Your task to perform on an android device: Look up the best rated video games on bestbuy.com Image 0: 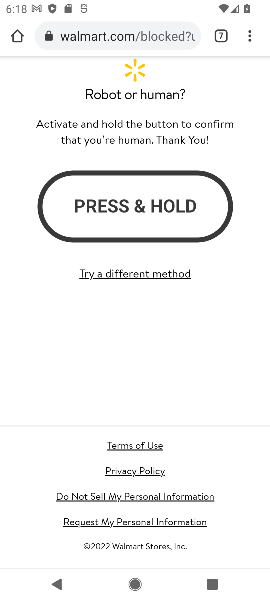
Step 0: press back button
Your task to perform on an android device: Look up the best rated video games on bestbuy.com Image 1: 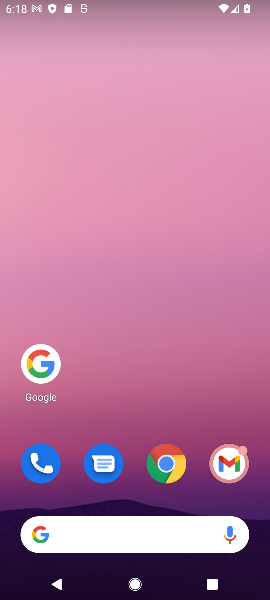
Step 1: click (39, 355)
Your task to perform on an android device: Look up the best rated video games on bestbuy.com Image 2: 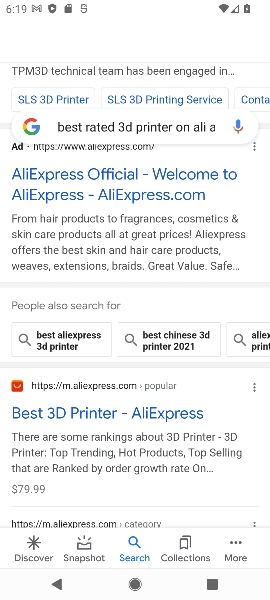
Step 2: click (126, 121)
Your task to perform on an android device: Look up the best rated video games on bestbuy.com Image 3: 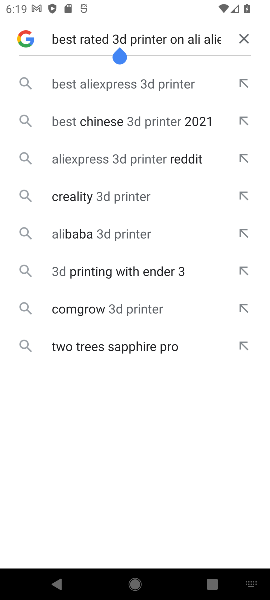
Step 3: click (247, 38)
Your task to perform on an android device: Look up the best rated video games on bestbuy.com Image 4: 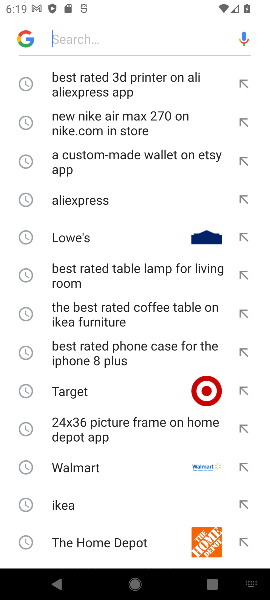
Step 4: click (125, 32)
Your task to perform on an android device: Look up the best rated video games on bestbuy.com Image 5: 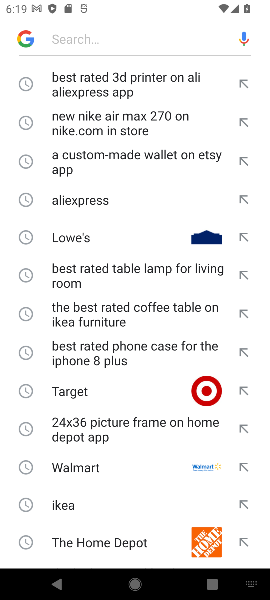
Step 5: type "best rated video games on bestbuy.com "
Your task to perform on an android device: Look up the best rated video games on bestbuy.com Image 6: 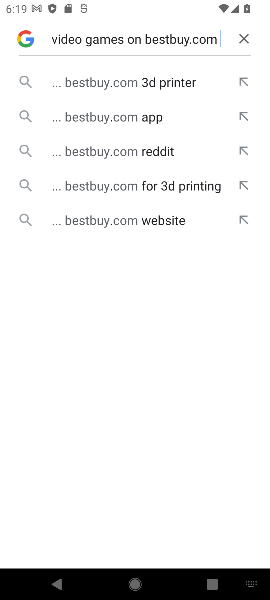
Step 6: click (129, 116)
Your task to perform on an android device: Look up the best rated video games on bestbuy.com Image 7: 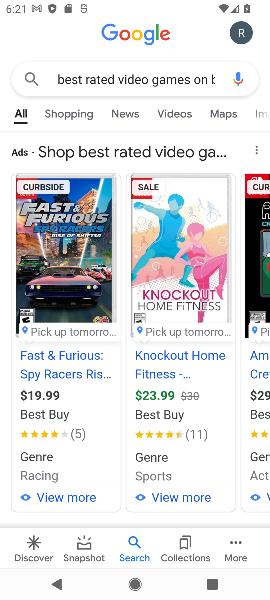
Step 7: task complete